Your task to perform on an android device: check android version Image 0: 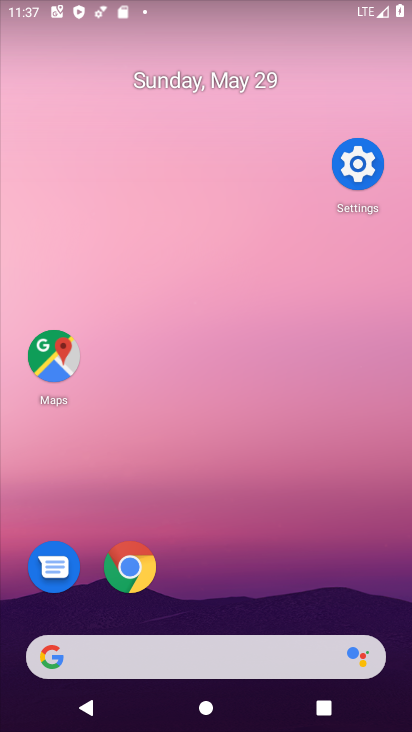
Step 0: drag from (282, 563) to (255, 238)
Your task to perform on an android device: check android version Image 1: 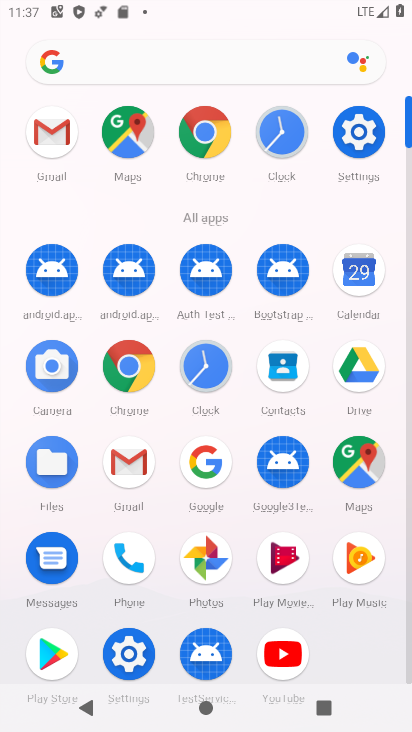
Step 1: click (366, 148)
Your task to perform on an android device: check android version Image 2: 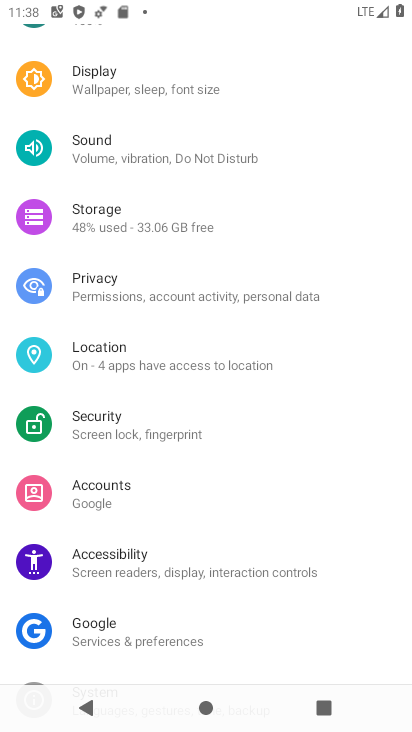
Step 2: drag from (253, 581) to (300, 218)
Your task to perform on an android device: check android version Image 3: 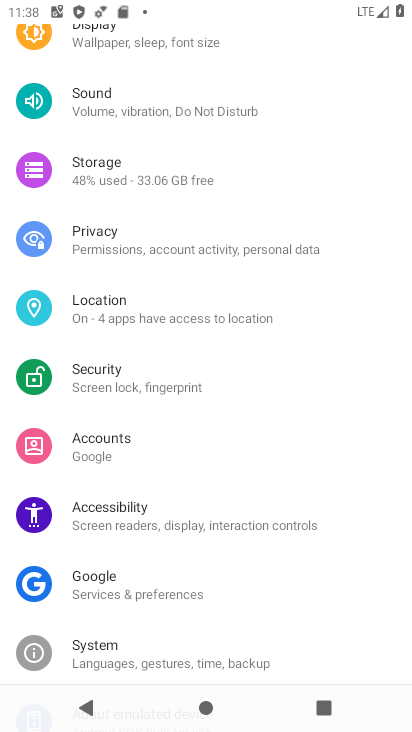
Step 3: click (219, 656)
Your task to perform on an android device: check android version Image 4: 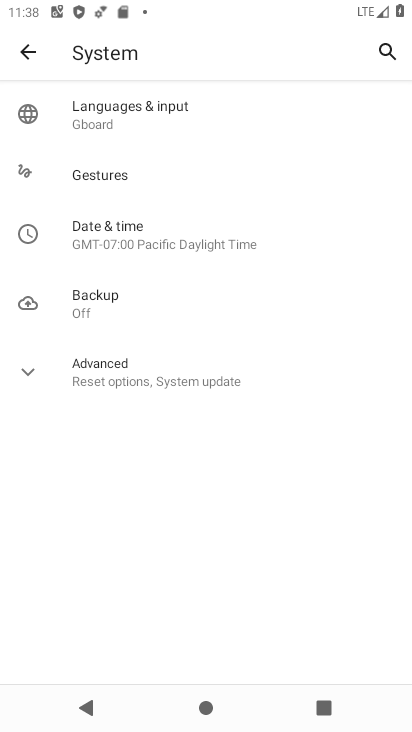
Step 4: click (21, 60)
Your task to perform on an android device: check android version Image 5: 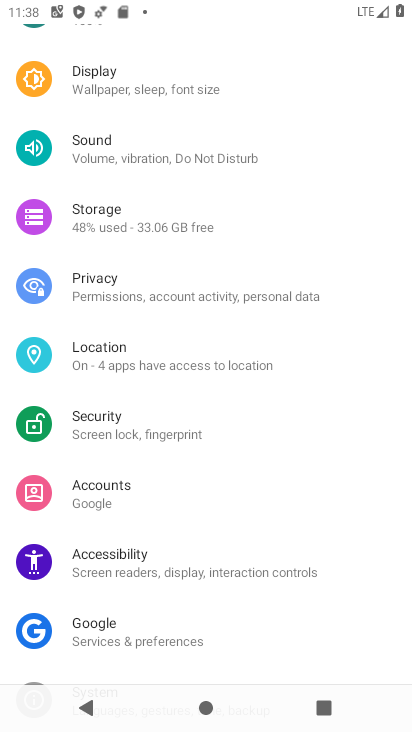
Step 5: drag from (218, 604) to (217, 258)
Your task to perform on an android device: check android version Image 6: 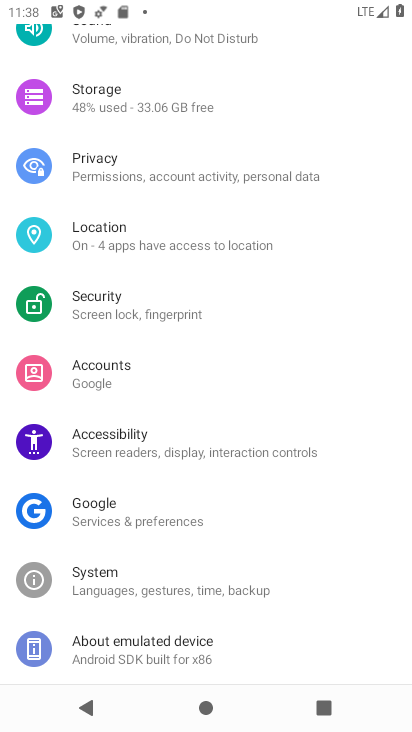
Step 6: click (180, 641)
Your task to perform on an android device: check android version Image 7: 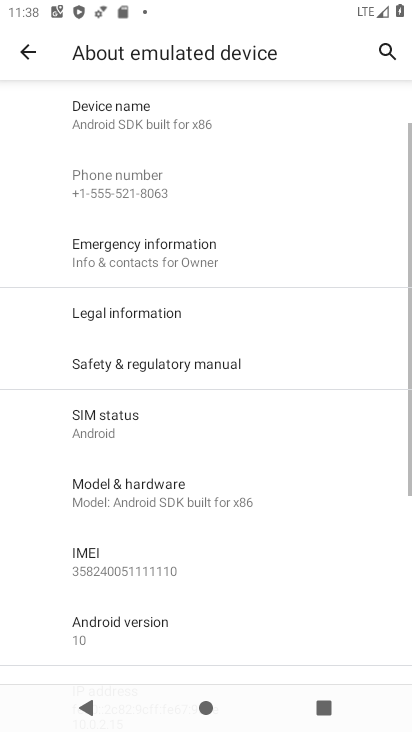
Step 7: click (167, 630)
Your task to perform on an android device: check android version Image 8: 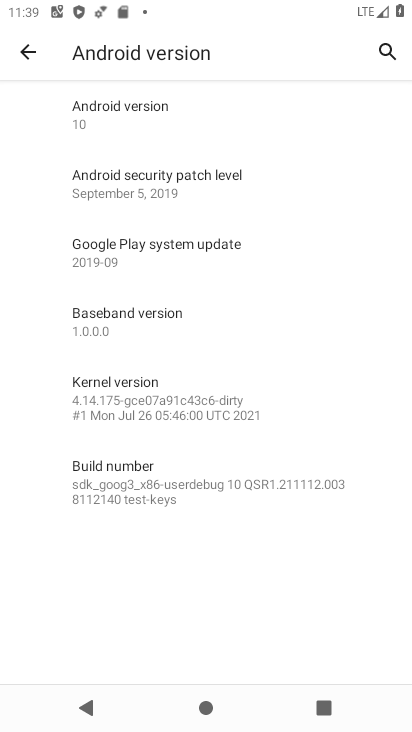
Step 8: task complete